Your task to perform on an android device: turn on location history Image 0: 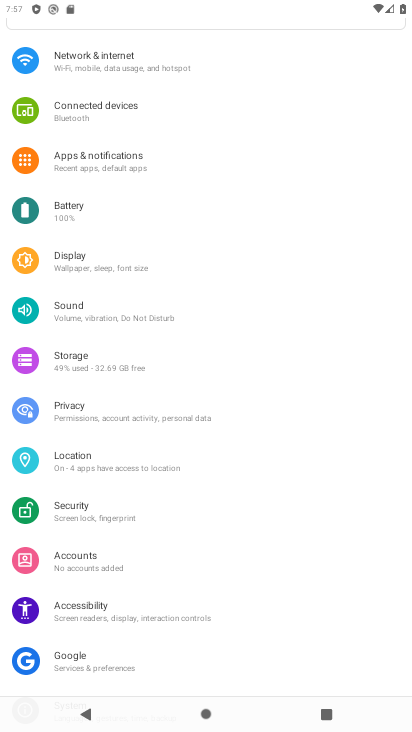
Step 0: click (75, 454)
Your task to perform on an android device: turn on location history Image 1: 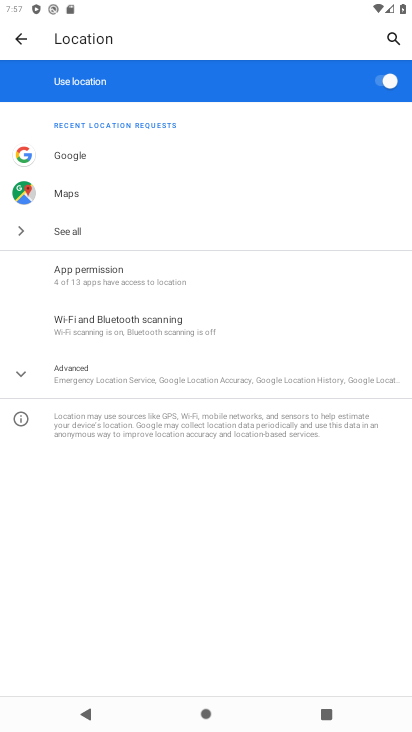
Step 1: click (54, 364)
Your task to perform on an android device: turn on location history Image 2: 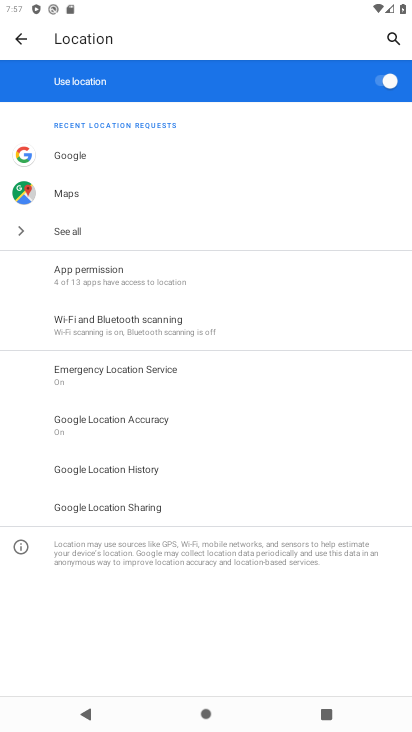
Step 2: click (134, 464)
Your task to perform on an android device: turn on location history Image 3: 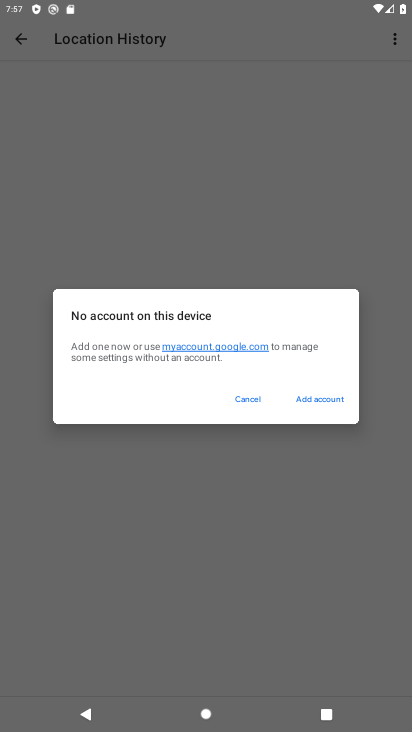
Step 3: drag from (76, 226) to (323, 364)
Your task to perform on an android device: turn on location history Image 4: 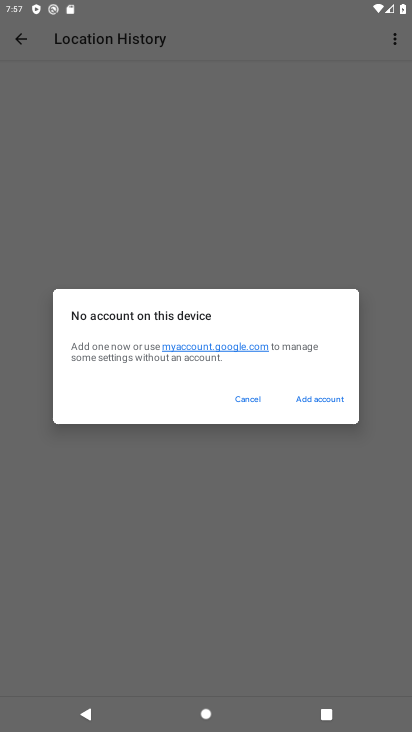
Step 4: click (249, 398)
Your task to perform on an android device: turn on location history Image 5: 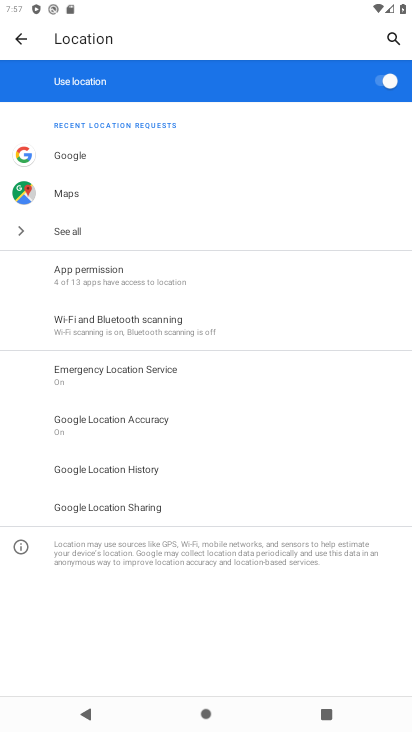
Step 5: task complete